Your task to perform on an android device: change the clock display to digital Image 0: 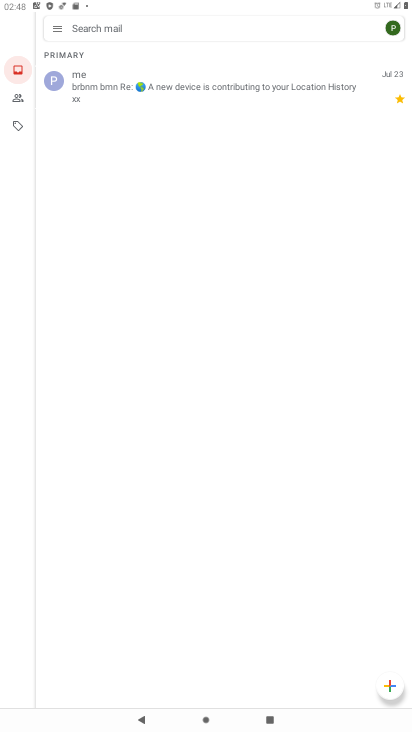
Step 0: press home button
Your task to perform on an android device: change the clock display to digital Image 1: 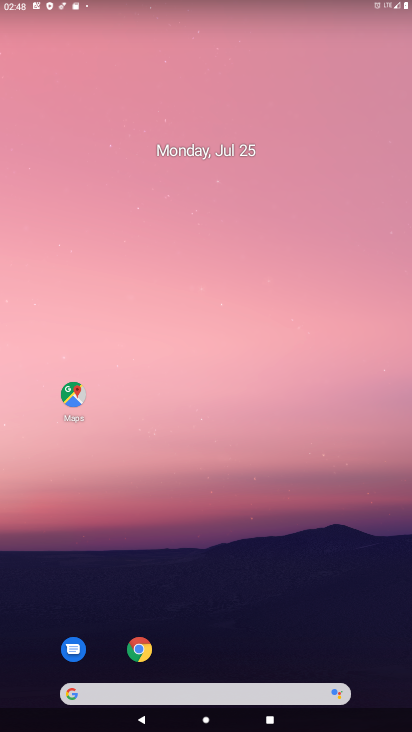
Step 1: drag from (365, 640) to (308, 180)
Your task to perform on an android device: change the clock display to digital Image 2: 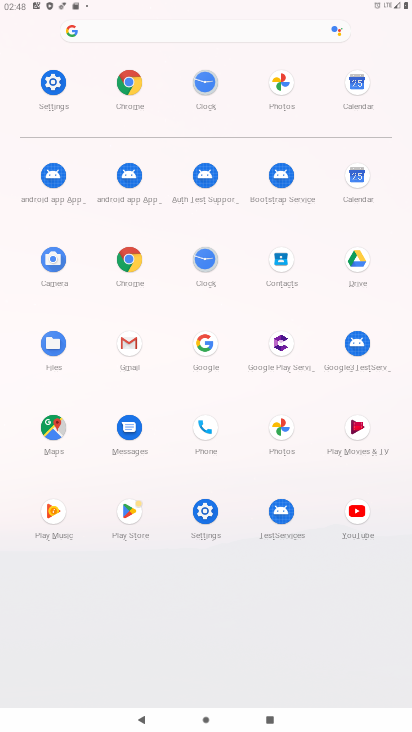
Step 2: click (205, 262)
Your task to perform on an android device: change the clock display to digital Image 3: 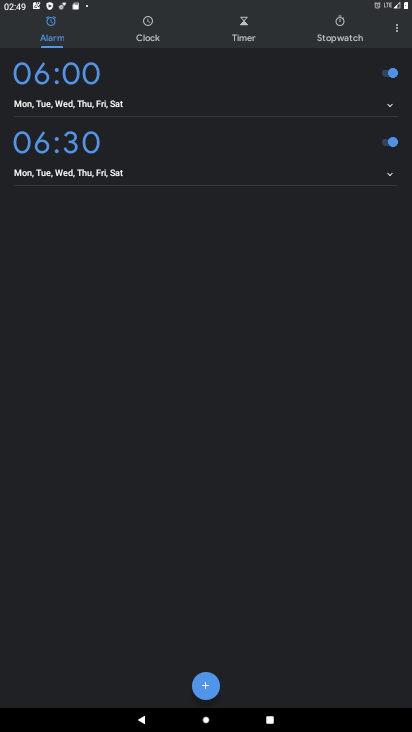
Step 3: click (397, 34)
Your task to perform on an android device: change the clock display to digital Image 4: 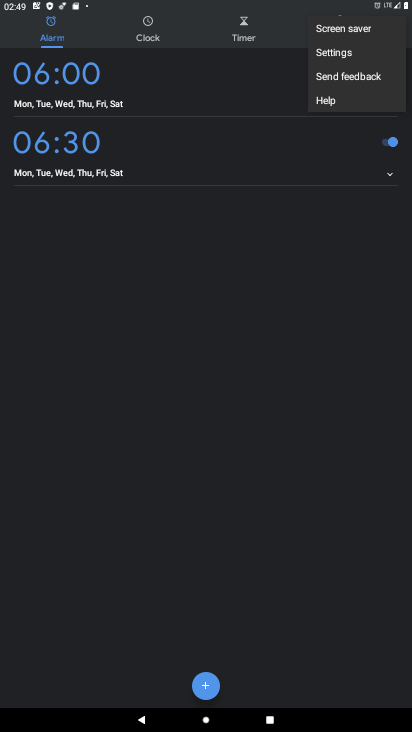
Step 4: click (339, 50)
Your task to perform on an android device: change the clock display to digital Image 5: 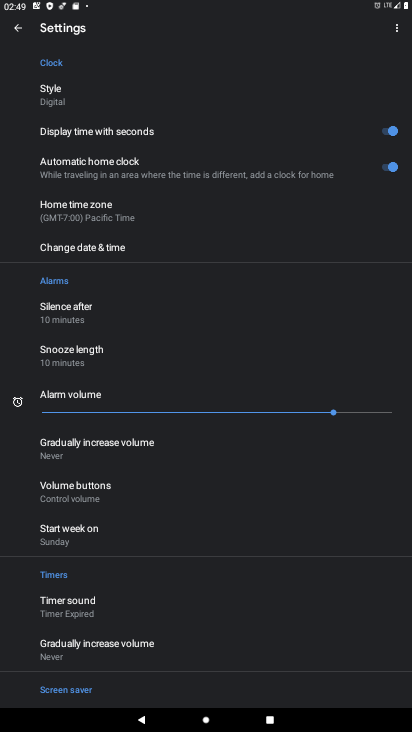
Step 5: task complete